Your task to perform on an android device: Is it going to rain today? Image 0: 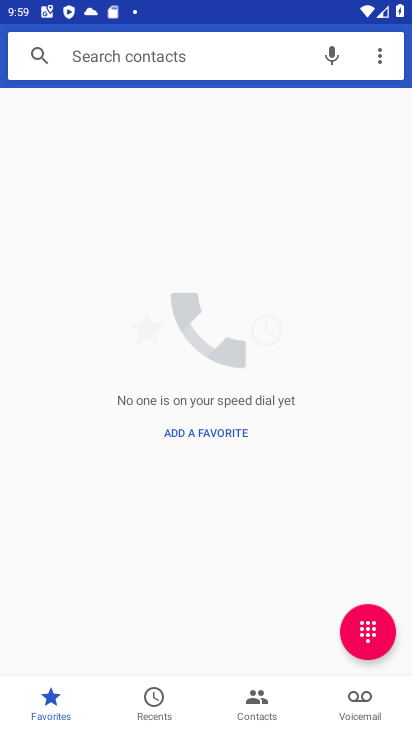
Step 0: press back button
Your task to perform on an android device: Is it going to rain today? Image 1: 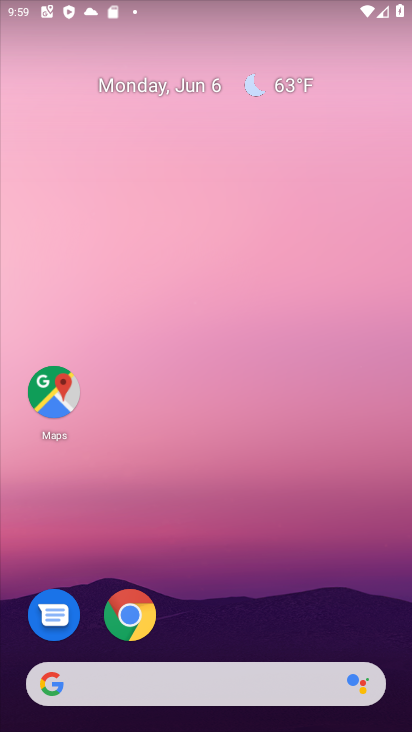
Step 1: drag from (204, 624) to (298, 117)
Your task to perform on an android device: Is it going to rain today? Image 2: 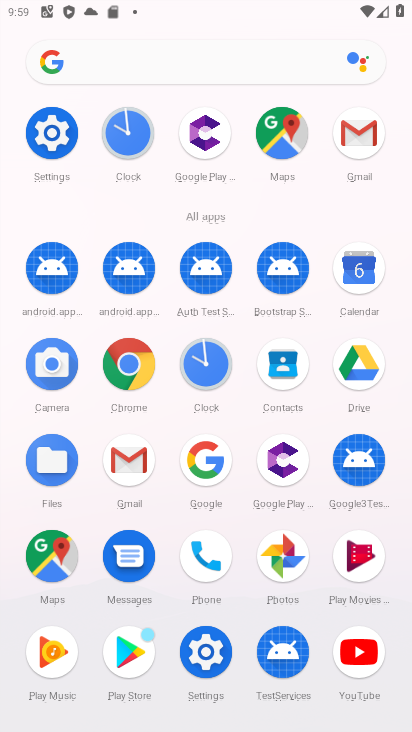
Step 2: press back button
Your task to perform on an android device: Is it going to rain today? Image 3: 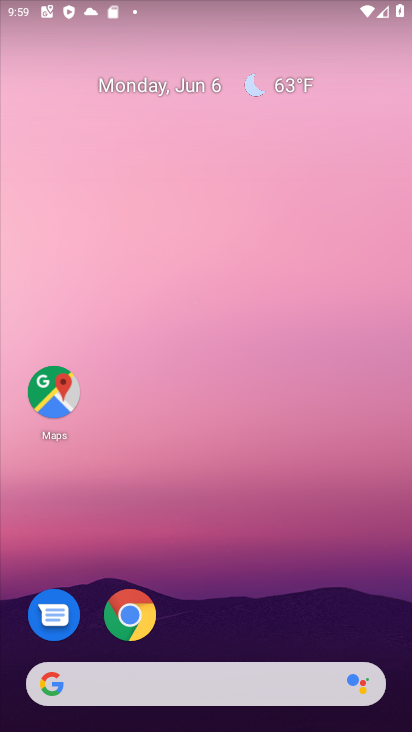
Step 3: click (141, 685)
Your task to perform on an android device: Is it going to rain today? Image 4: 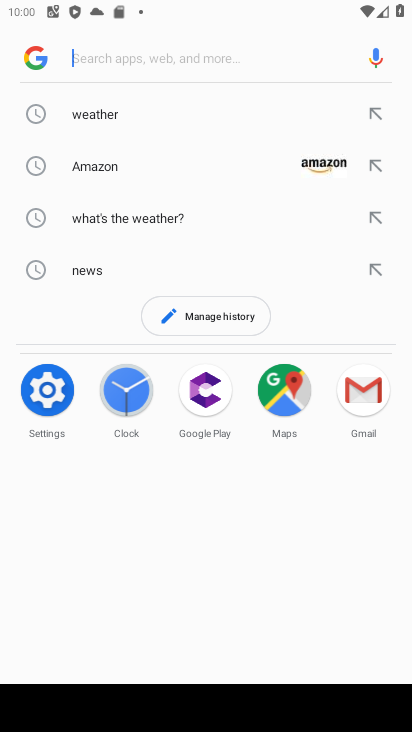
Step 4: click (119, 114)
Your task to perform on an android device: Is it going to rain today? Image 5: 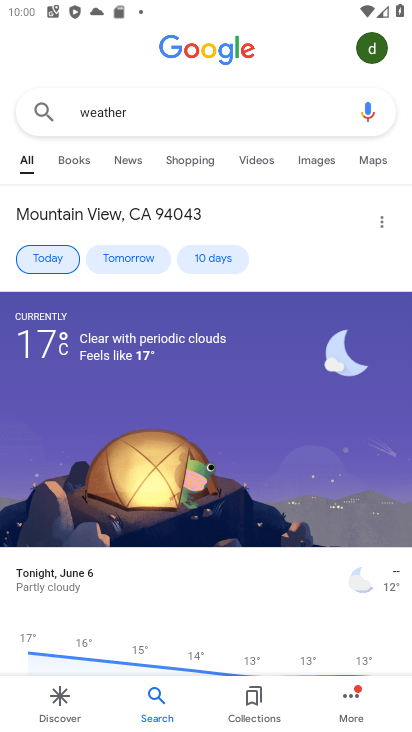
Step 5: task complete